Your task to perform on an android device: toggle translation in the chrome app Image 0: 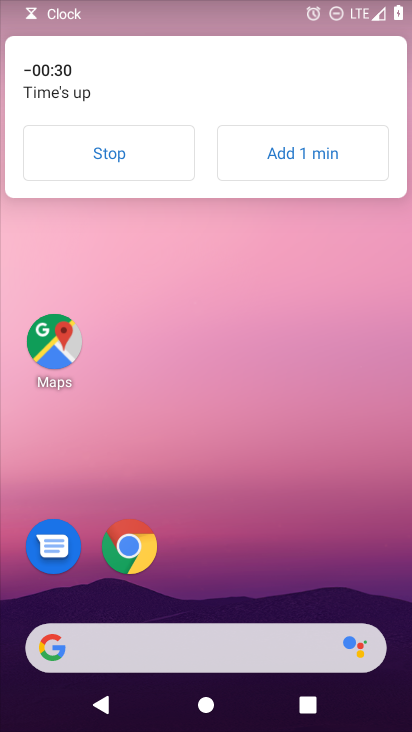
Step 0: drag from (335, 576) to (336, 241)
Your task to perform on an android device: toggle translation in the chrome app Image 1: 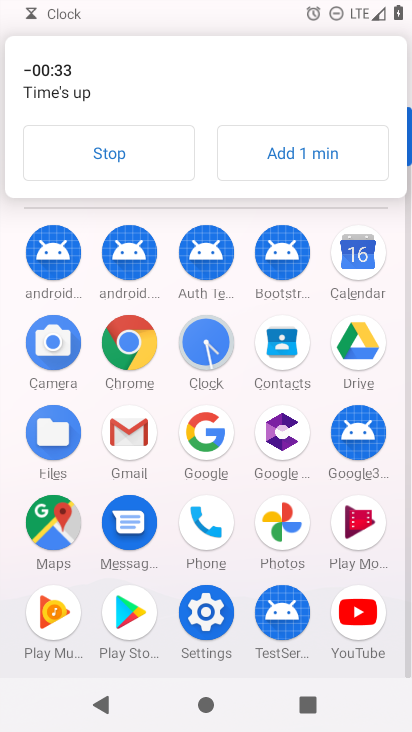
Step 1: click (86, 140)
Your task to perform on an android device: toggle translation in the chrome app Image 2: 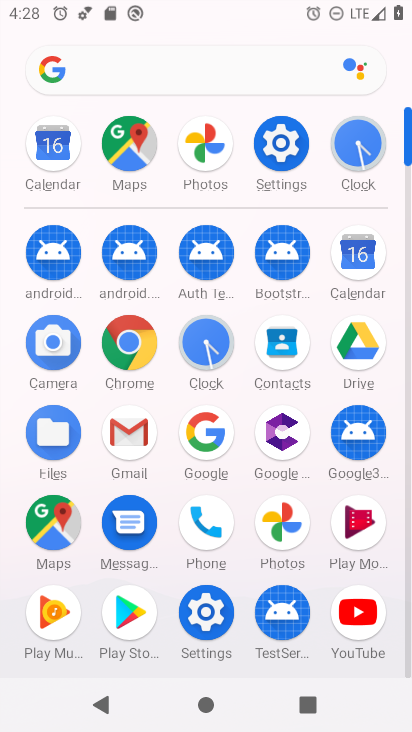
Step 2: click (136, 370)
Your task to perform on an android device: toggle translation in the chrome app Image 3: 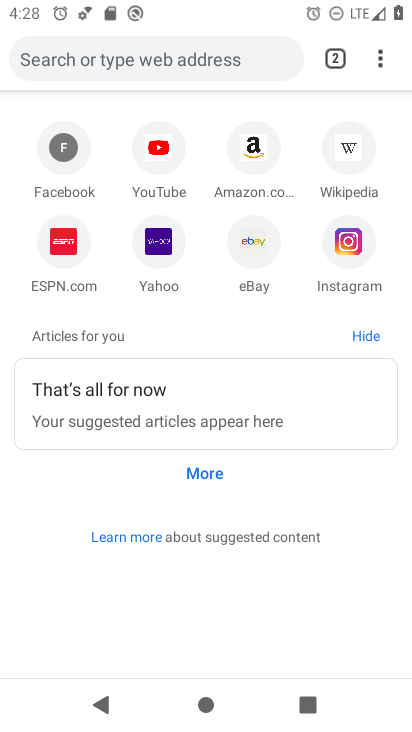
Step 3: click (381, 65)
Your task to perform on an android device: toggle translation in the chrome app Image 4: 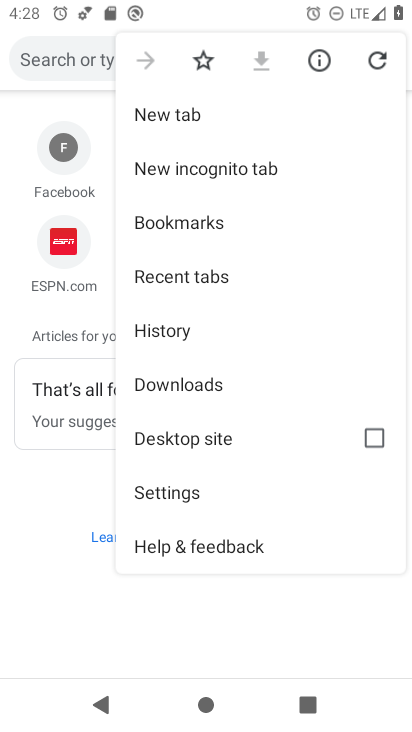
Step 4: click (185, 494)
Your task to perform on an android device: toggle translation in the chrome app Image 5: 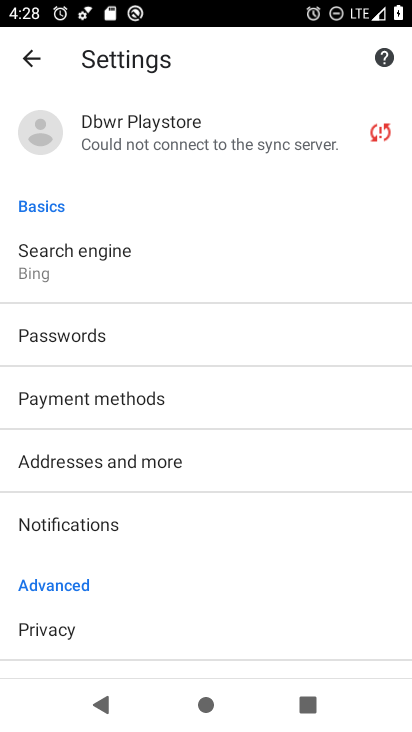
Step 5: drag from (264, 574) to (275, 397)
Your task to perform on an android device: toggle translation in the chrome app Image 6: 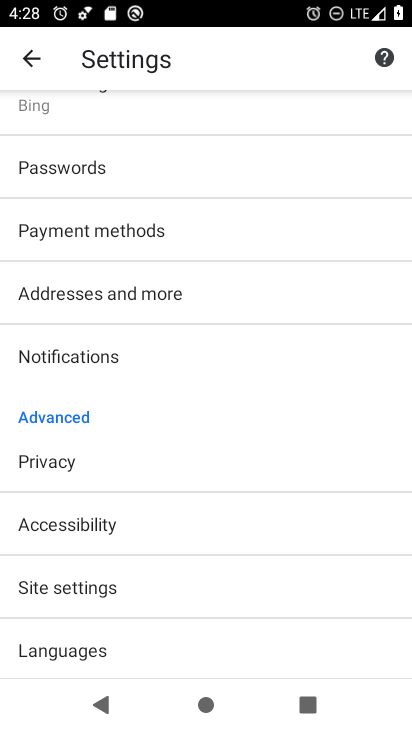
Step 6: drag from (266, 622) to (281, 450)
Your task to perform on an android device: toggle translation in the chrome app Image 7: 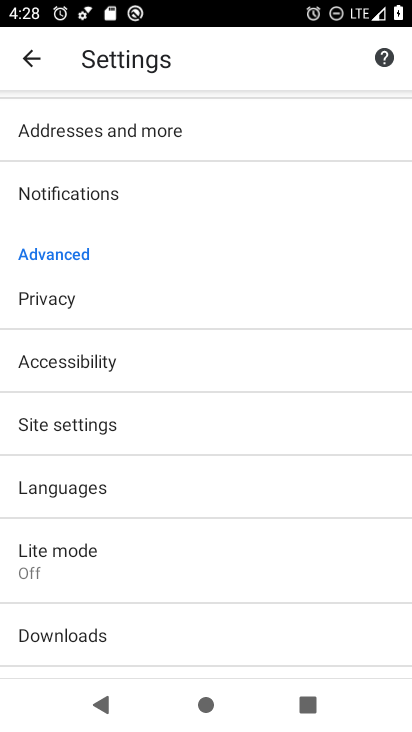
Step 7: drag from (251, 628) to (279, 478)
Your task to perform on an android device: toggle translation in the chrome app Image 8: 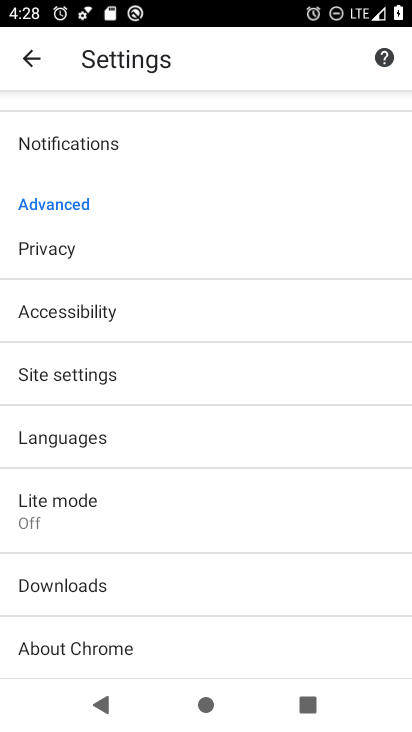
Step 8: drag from (276, 326) to (260, 442)
Your task to perform on an android device: toggle translation in the chrome app Image 9: 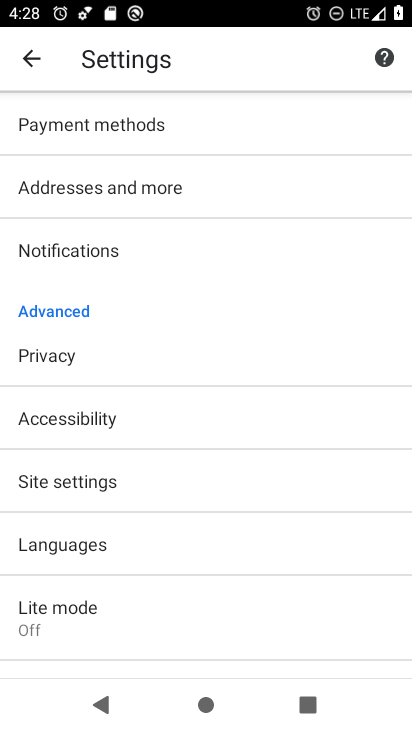
Step 9: click (199, 554)
Your task to perform on an android device: toggle translation in the chrome app Image 10: 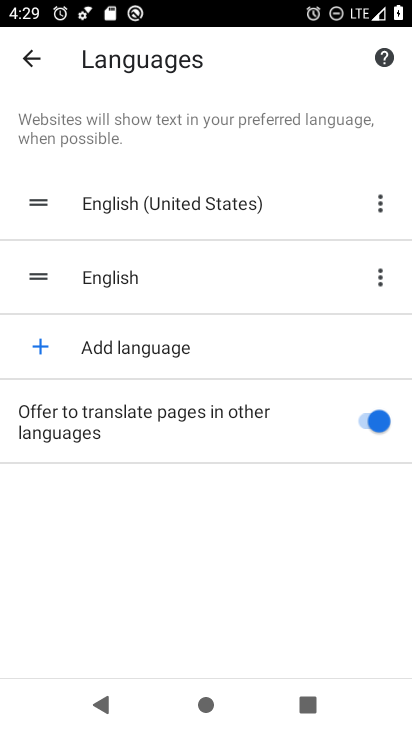
Step 10: click (360, 422)
Your task to perform on an android device: toggle translation in the chrome app Image 11: 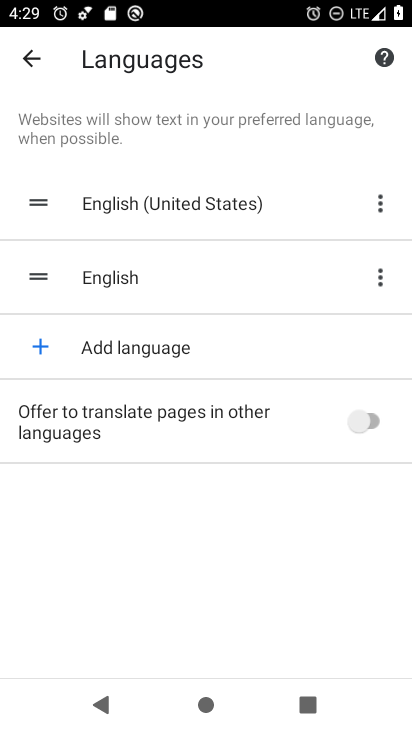
Step 11: task complete